Your task to perform on an android device: remove spam from my inbox in the gmail app Image 0: 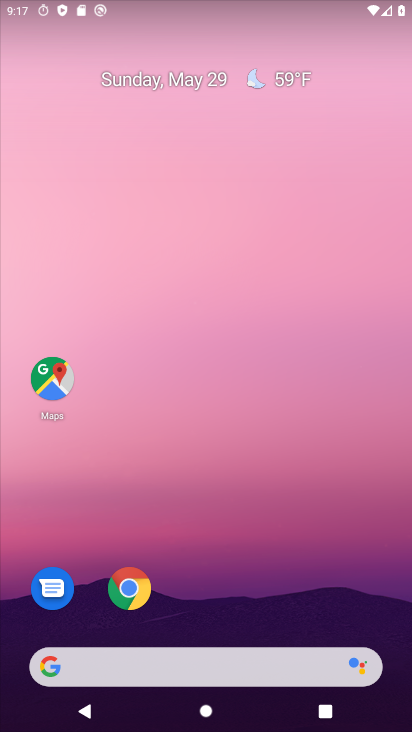
Step 0: drag from (231, 609) to (246, 44)
Your task to perform on an android device: remove spam from my inbox in the gmail app Image 1: 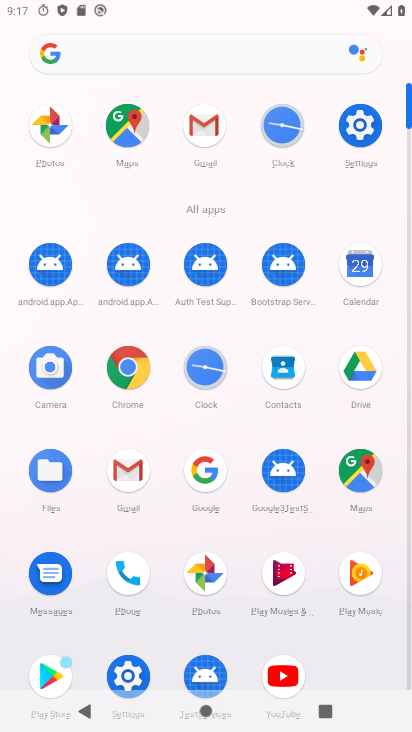
Step 1: click (122, 482)
Your task to perform on an android device: remove spam from my inbox in the gmail app Image 2: 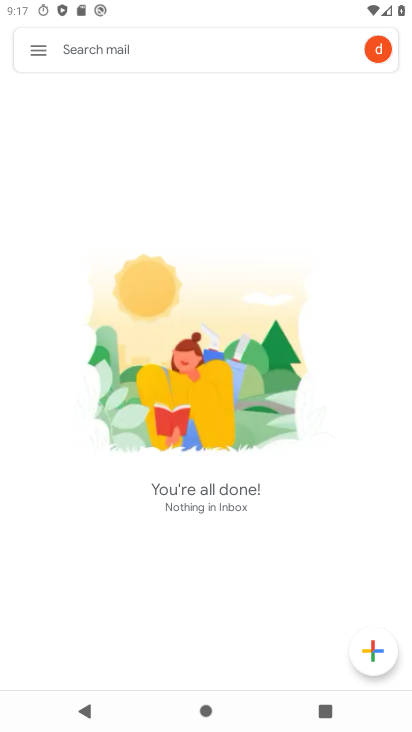
Step 2: click (38, 46)
Your task to perform on an android device: remove spam from my inbox in the gmail app Image 3: 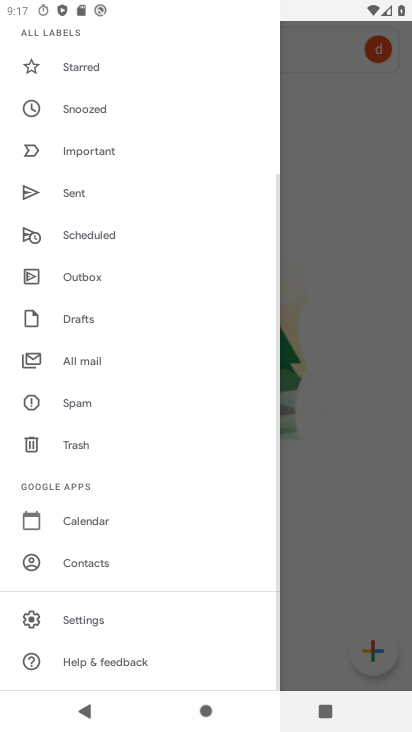
Step 3: click (91, 405)
Your task to perform on an android device: remove spam from my inbox in the gmail app Image 4: 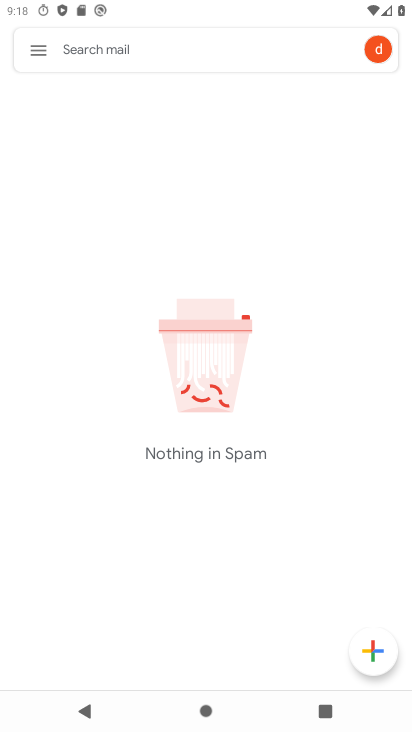
Step 4: task complete